Your task to perform on an android device: Go to notification settings Image 0: 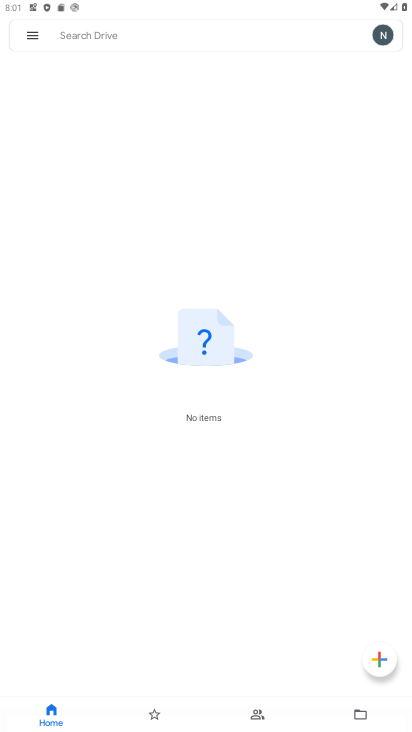
Step 0: press home button
Your task to perform on an android device: Go to notification settings Image 1: 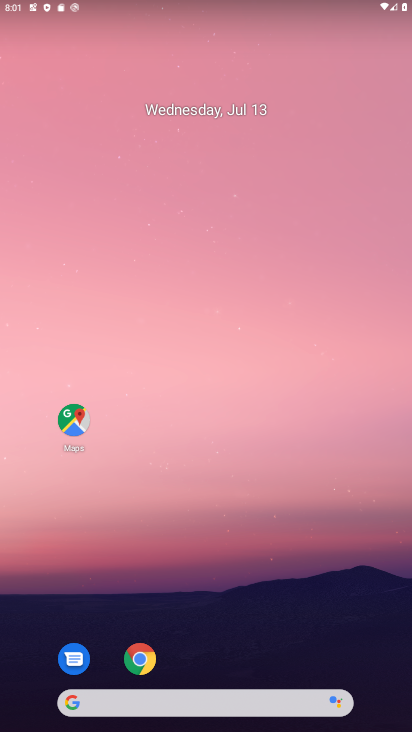
Step 1: drag from (178, 672) to (193, 191)
Your task to perform on an android device: Go to notification settings Image 2: 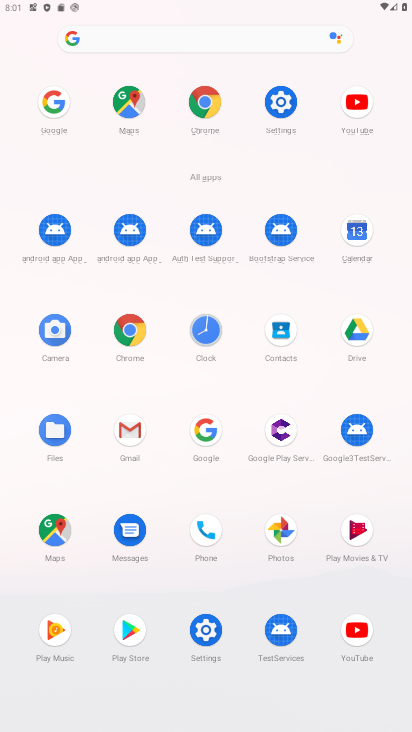
Step 2: click (286, 112)
Your task to perform on an android device: Go to notification settings Image 3: 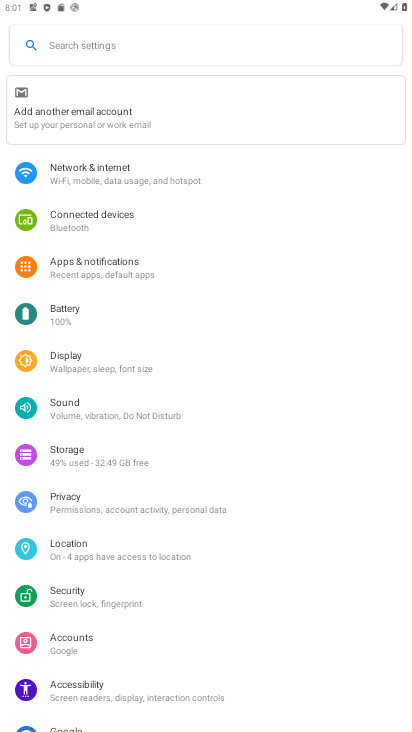
Step 3: click (145, 273)
Your task to perform on an android device: Go to notification settings Image 4: 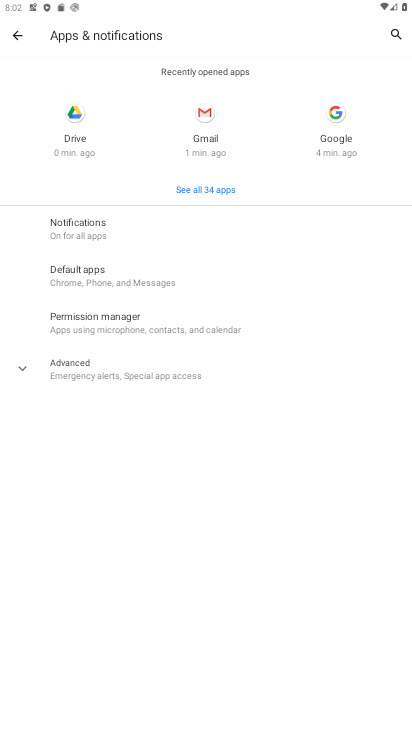
Step 4: click (117, 230)
Your task to perform on an android device: Go to notification settings Image 5: 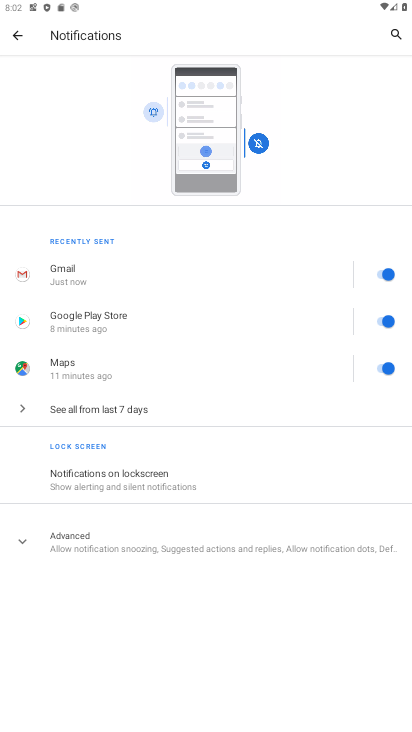
Step 5: task complete